Your task to perform on an android device: move a message to another label in the gmail app Image 0: 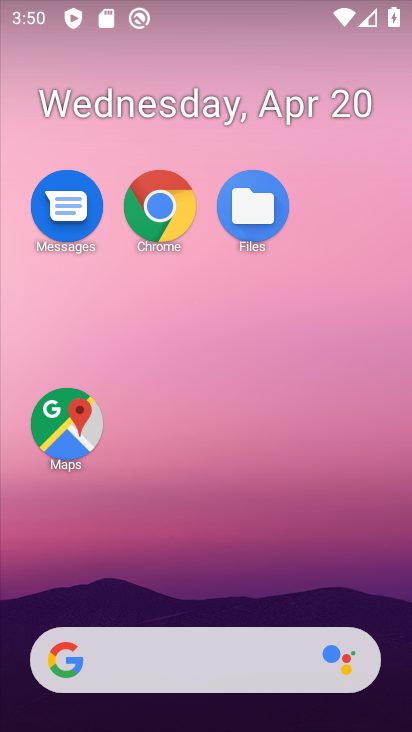
Step 0: drag from (185, 564) to (297, 20)
Your task to perform on an android device: move a message to another label in the gmail app Image 1: 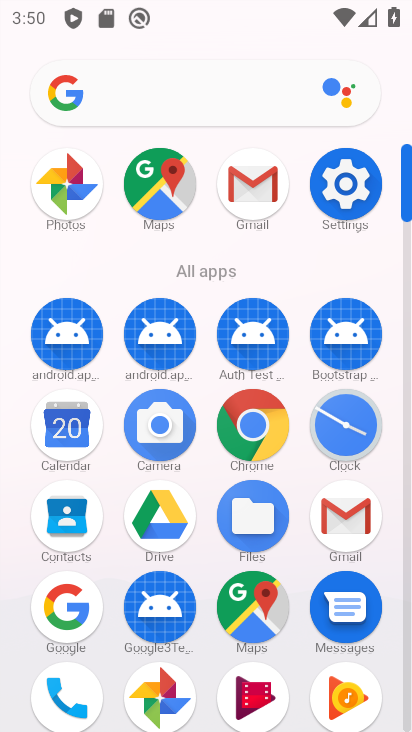
Step 1: click (351, 526)
Your task to perform on an android device: move a message to another label in the gmail app Image 2: 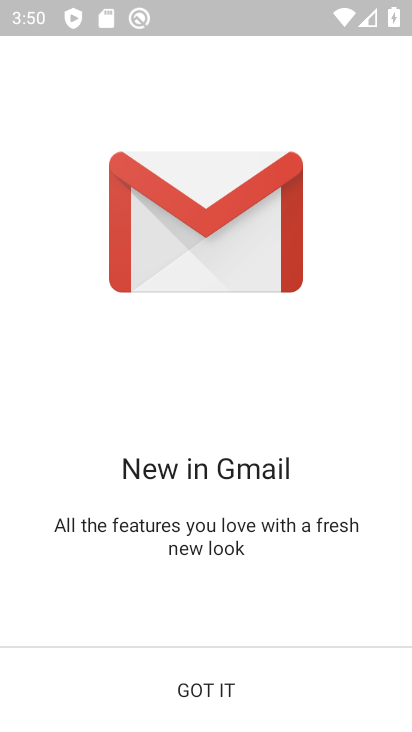
Step 2: click (257, 707)
Your task to perform on an android device: move a message to another label in the gmail app Image 3: 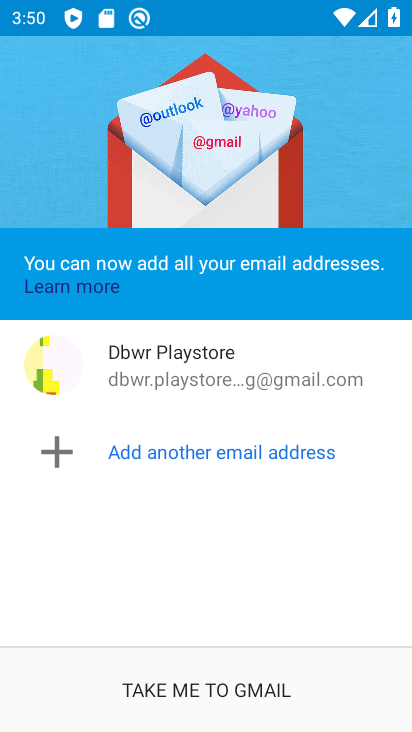
Step 3: click (216, 701)
Your task to perform on an android device: move a message to another label in the gmail app Image 4: 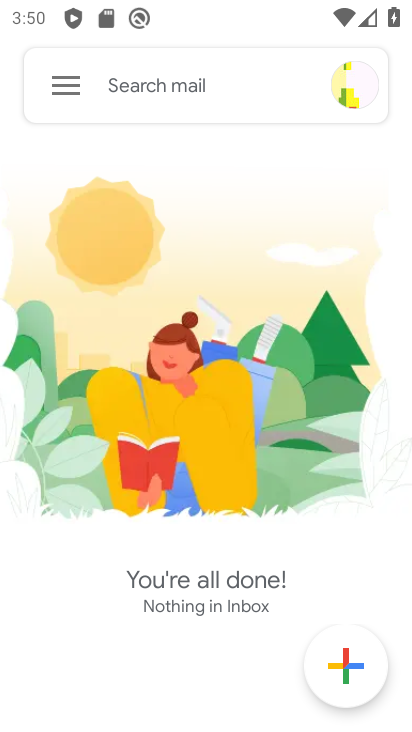
Step 4: click (60, 92)
Your task to perform on an android device: move a message to another label in the gmail app Image 5: 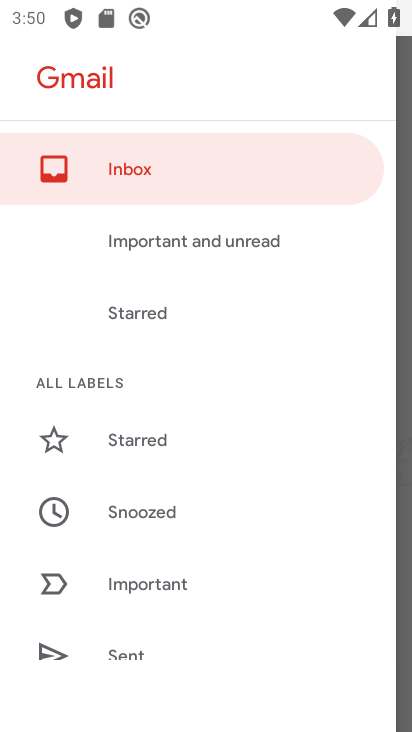
Step 5: drag from (115, 504) to (150, 223)
Your task to perform on an android device: move a message to another label in the gmail app Image 6: 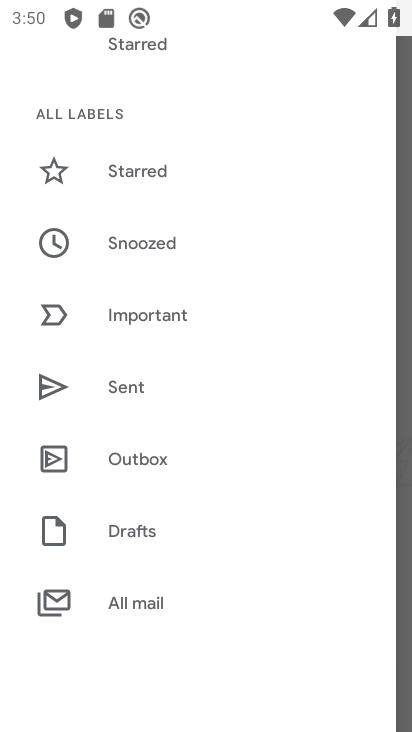
Step 6: click (123, 612)
Your task to perform on an android device: move a message to another label in the gmail app Image 7: 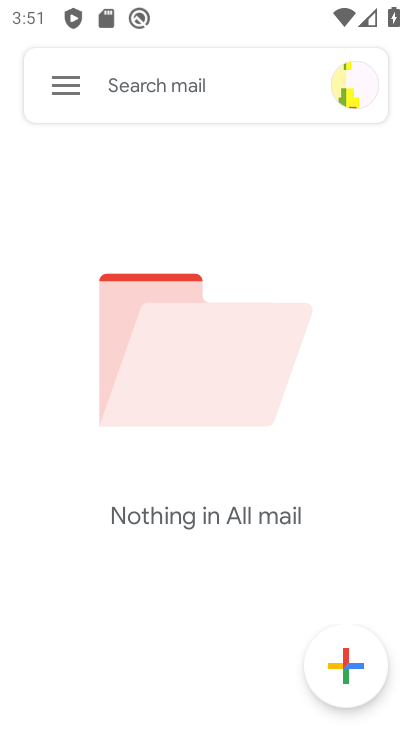
Step 7: task complete